Your task to perform on an android device: Show the shopping cart on amazon.com. Search for "dell xps" on amazon.com, select the first entry, add it to the cart, then select checkout. Image 0: 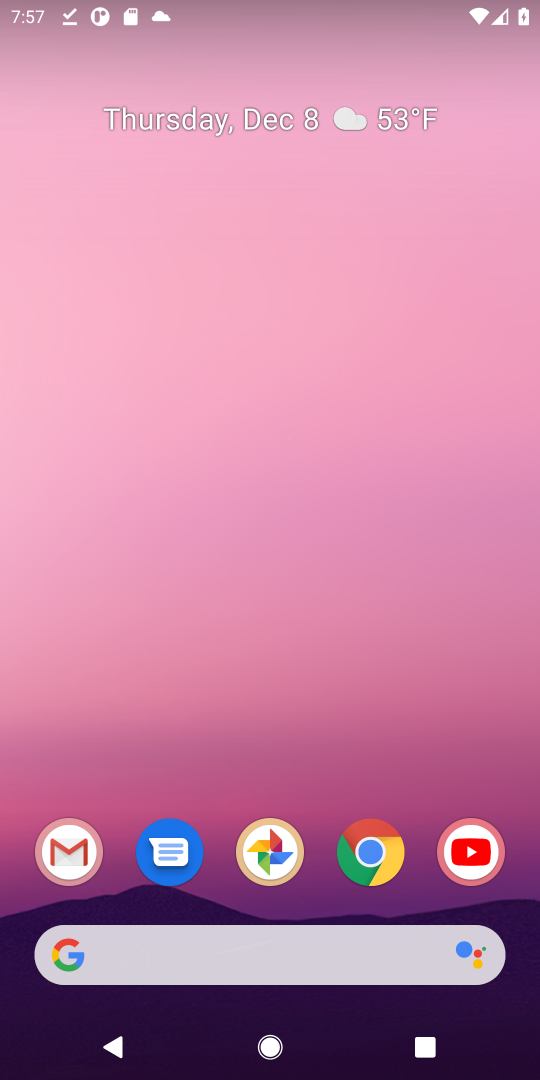
Step 0: click (247, 970)
Your task to perform on an android device: Show the shopping cart on amazon.com. Search for "dell xps" on amazon.com, select the first entry, add it to the cart, then select checkout. Image 1: 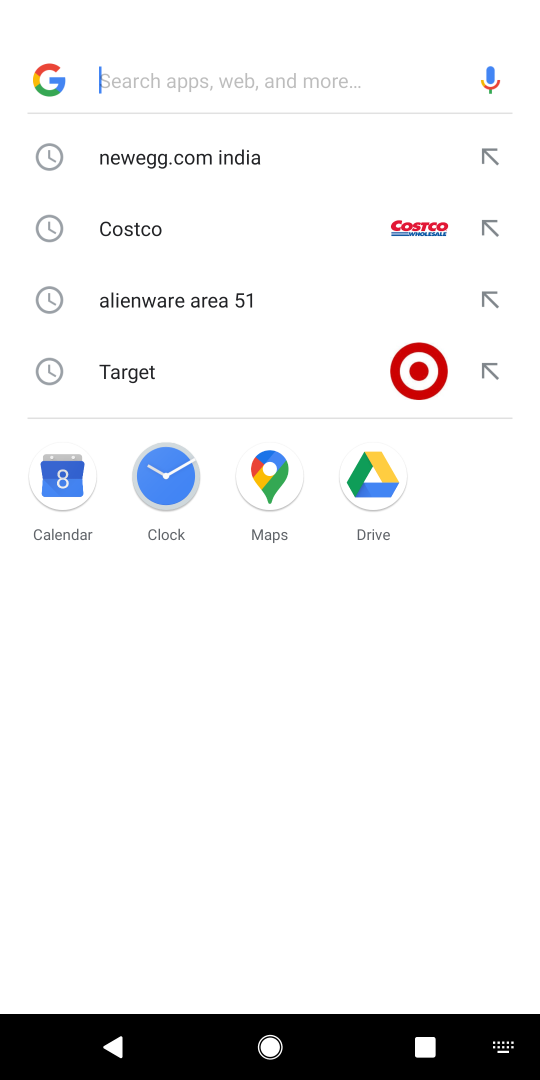
Step 1: type "amazon"
Your task to perform on an android device: Show the shopping cart on amazon.com. Search for "dell xps" on amazon.com, select the first entry, add it to the cart, then select checkout. Image 2: 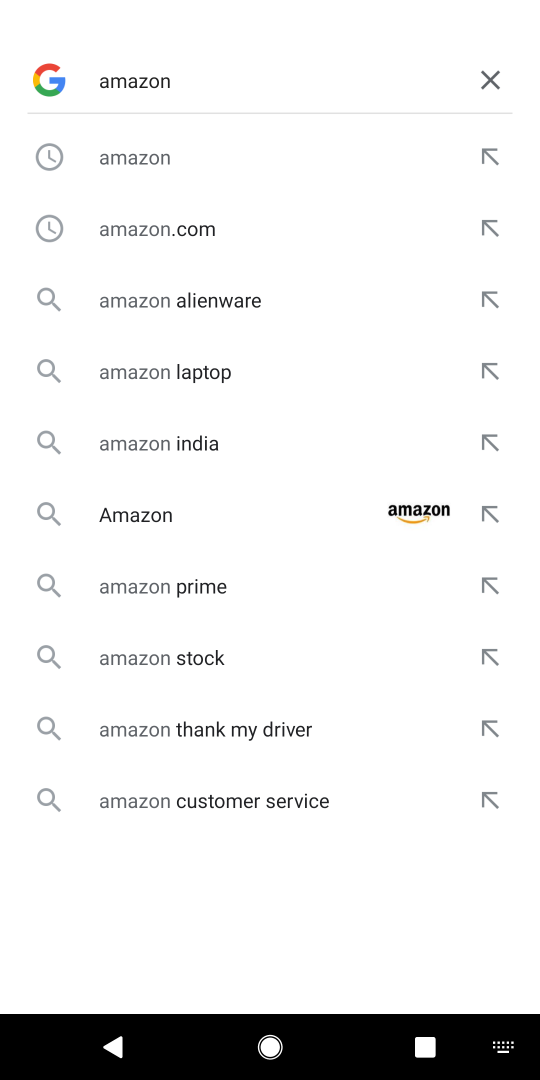
Step 2: click (194, 517)
Your task to perform on an android device: Show the shopping cart on amazon.com. Search for "dell xps" on amazon.com, select the first entry, add it to the cart, then select checkout. Image 3: 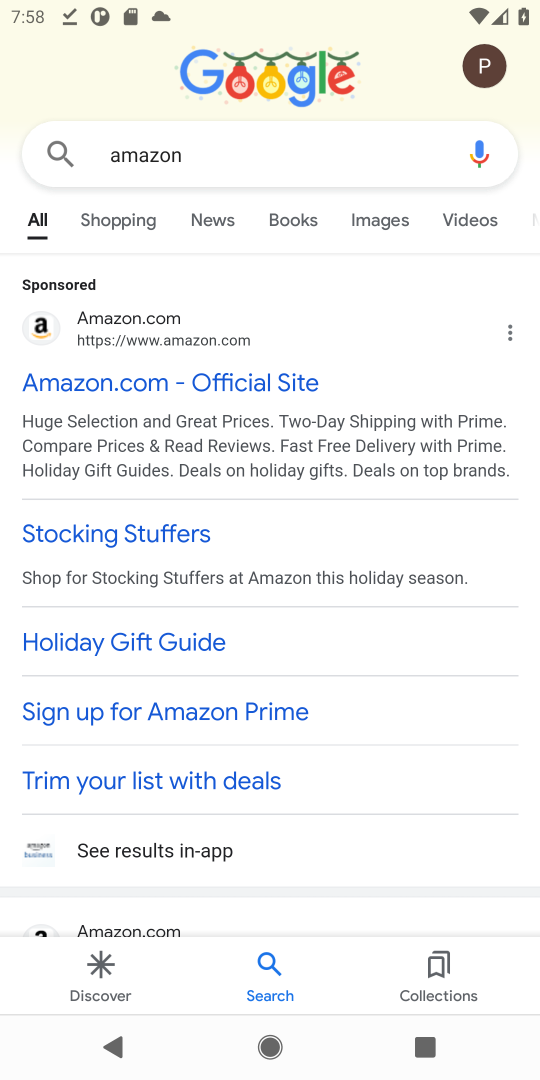
Step 3: click (159, 394)
Your task to perform on an android device: Show the shopping cart on amazon.com. Search for "dell xps" on amazon.com, select the first entry, add it to the cart, then select checkout. Image 4: 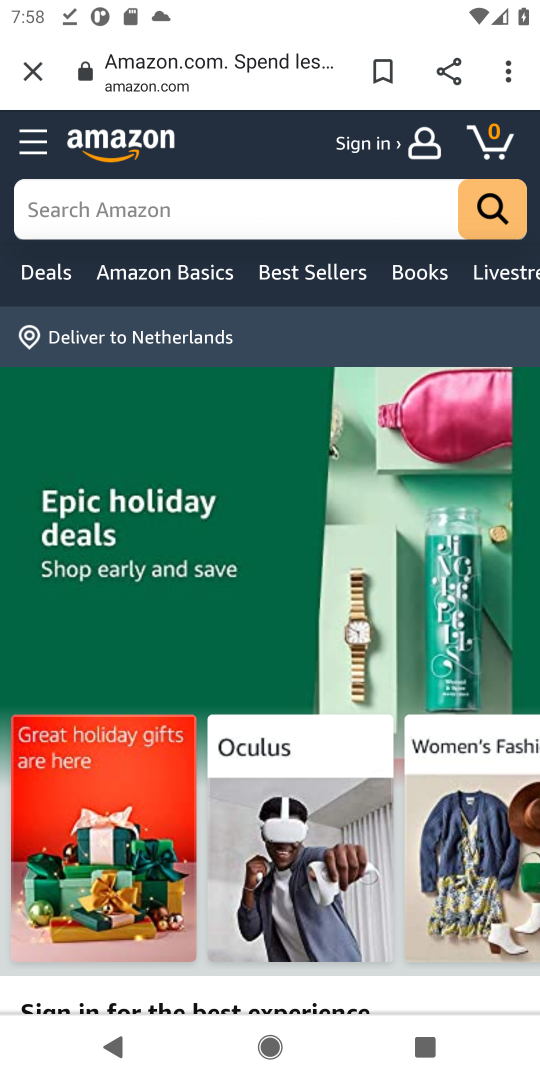
Step 4: click (286, 208)
Your task to perform on an android device: Show the shopping cart on amazon.com. Search for "dell xps" on amazon.com, select the first entry, add it to the cart, then select checkout. Image 5: 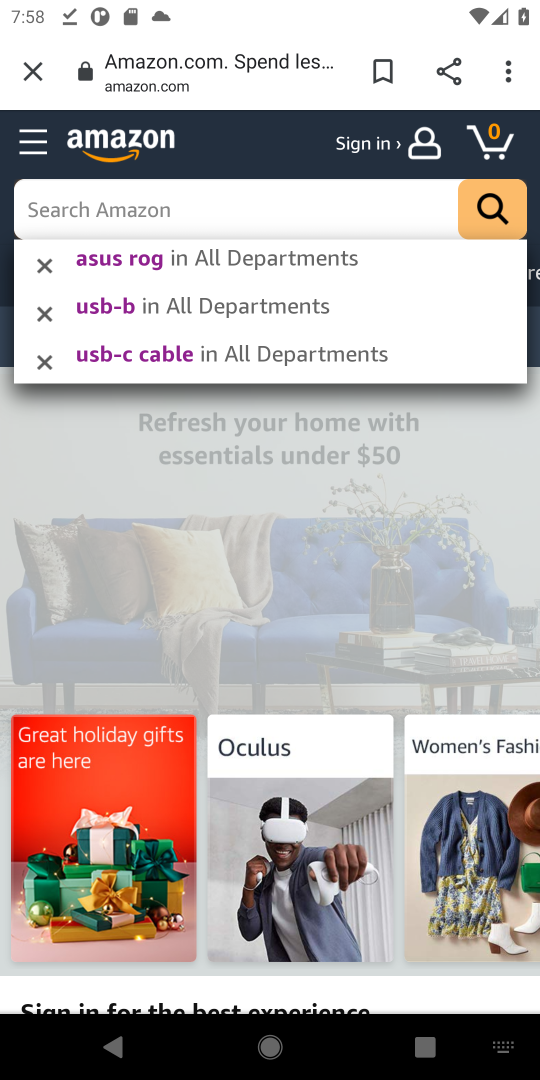
Step 5: type "dell xps"
Your task to perform on an android device: Show the shopping cart on amazon.com. Search for "dell xps" on amazon.com, select the first entry, add it to the cart, then select checkout. Image 6: 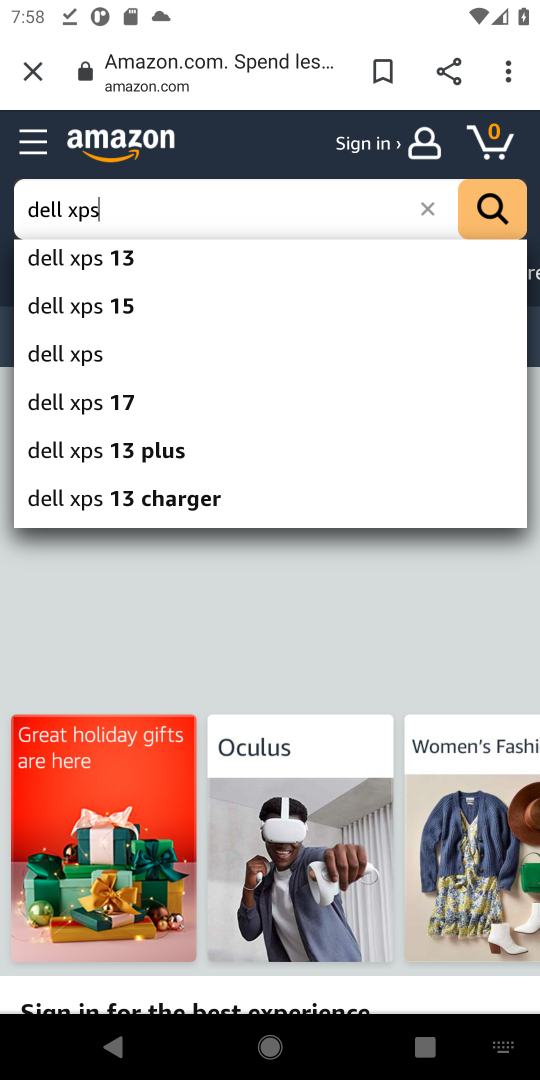
Step 6: click (94, 346)
Your task to perform on an android device: Show the shopping cart on amazon.com. Search for "dell xps" on amazon.com, select the first entry, add it to the cart, then select checkout. Image 7: 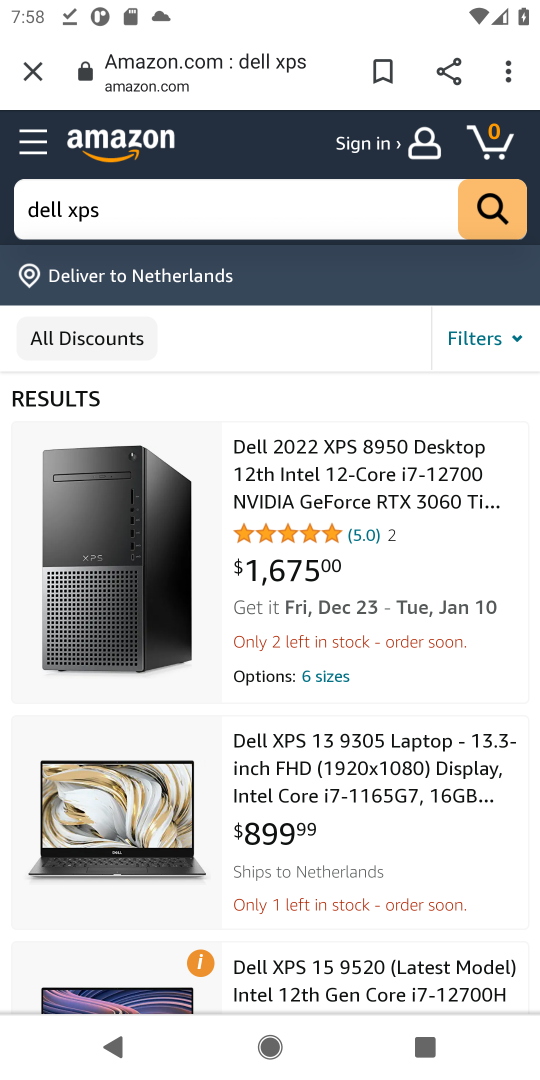
Step 7: click (378, 510)
Your task to perform on an android device: Show the shopping cart on amazon.com. Search for "dell xps" on amazon.com, select the first entry, add it to the cart, then select checkout. Image 8: 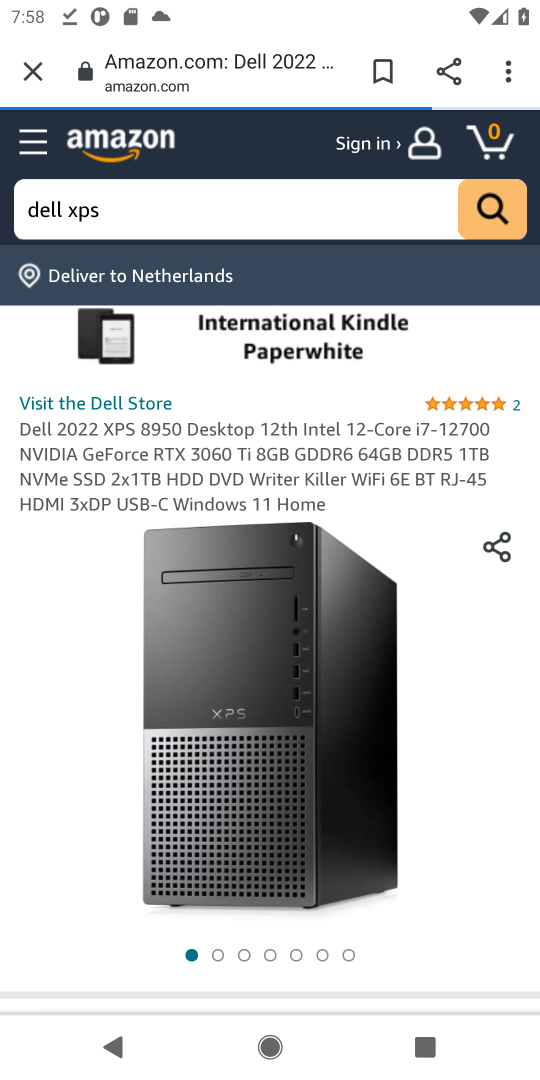
Step 8: drag from (365, 821) to (359, 245)
Your task to perform on an android device: Show the shopping cart on amazon.com. Search for "dell xps" on amazon.com, select the first entry, add it to the cart, then select checkout. Image 9: 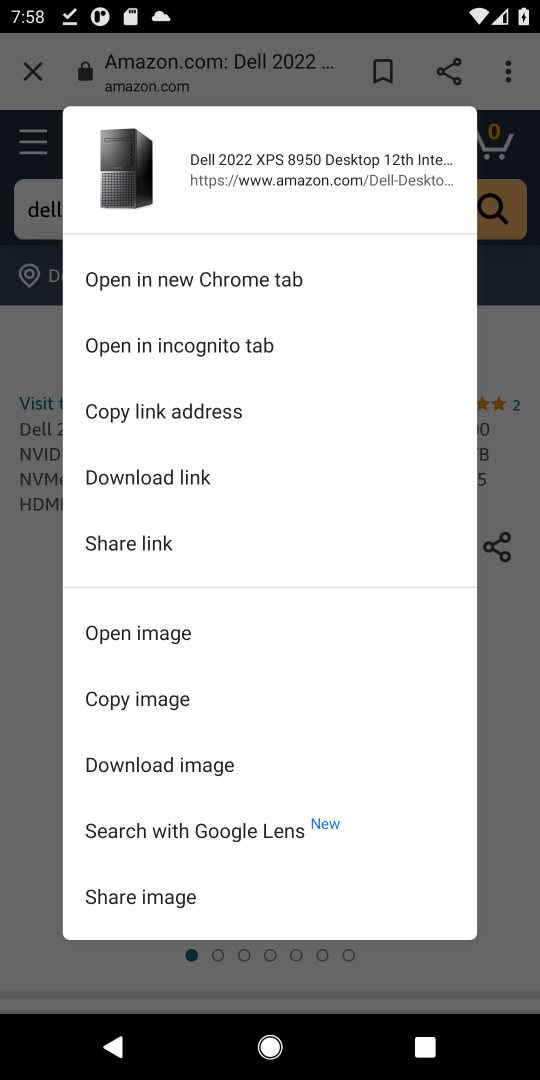
Step 9: click (511, 785)
Your task to perform on an android device: Show the shopping cart on amazon.com. Search for "dell xps" on amazon.com, select the first entry, add it to the cart, then select checkout. Image 10: 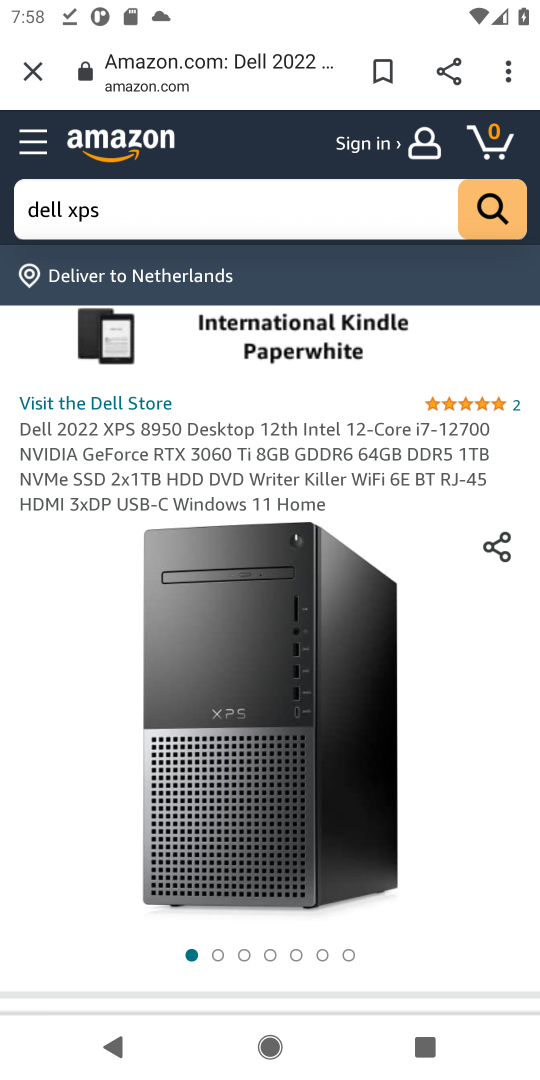
Step 10: task complete